Your task to perform on an android device: Go to sound settings Image 0: 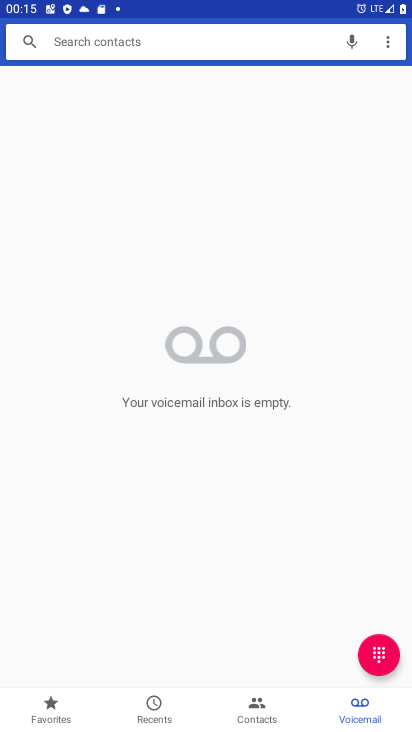
Step 0: press home button
Your task to perform on an android device: Go to sound settings Image 1: 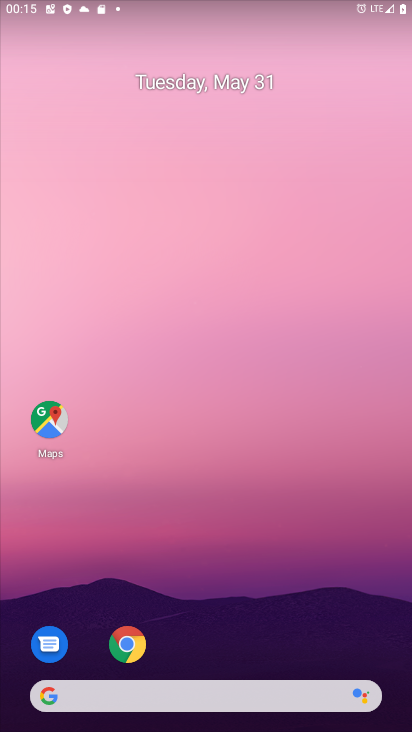
Step 1: drag from (386, 646) to (313, 179)
Your task to perform on an android device: Go to sound settings Image 2: 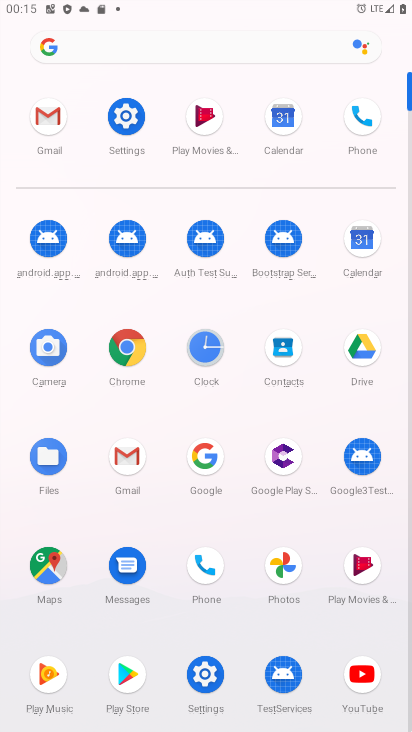
Step 2: click (204, 675)
Your task to perform on an android device: Go to sound settings Image 3: 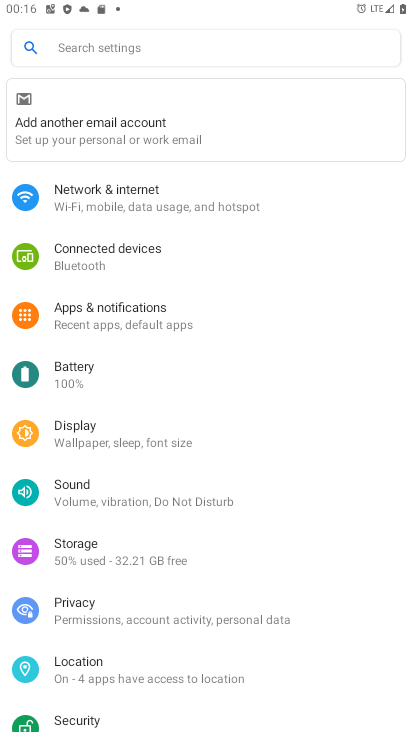
Step 3: click (72, 488)
Your task to perform on an android device: Go to sound settings Image 4: 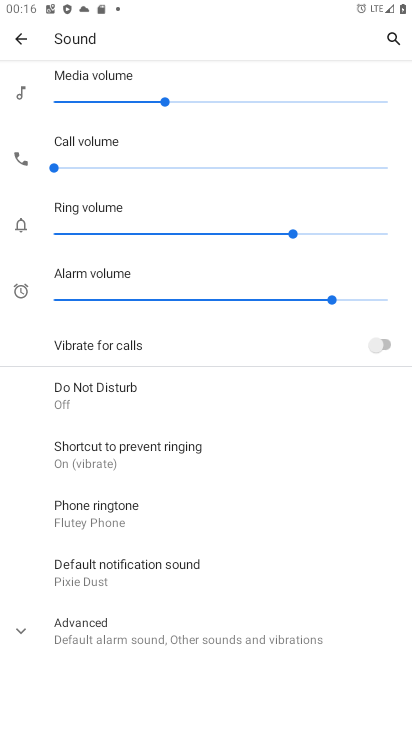
Step 4: click (22, 628)
Your task to perform on an android device: Go to sound settings Image 5: 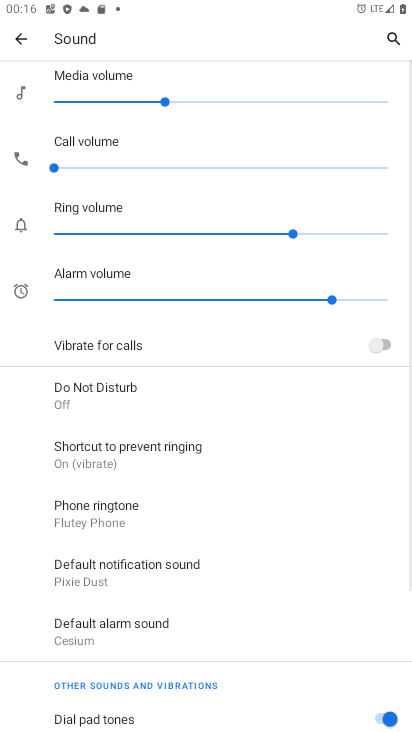
Step 5: task complete